Your task to perform on an android device: Is it going to rain today? Image 0: 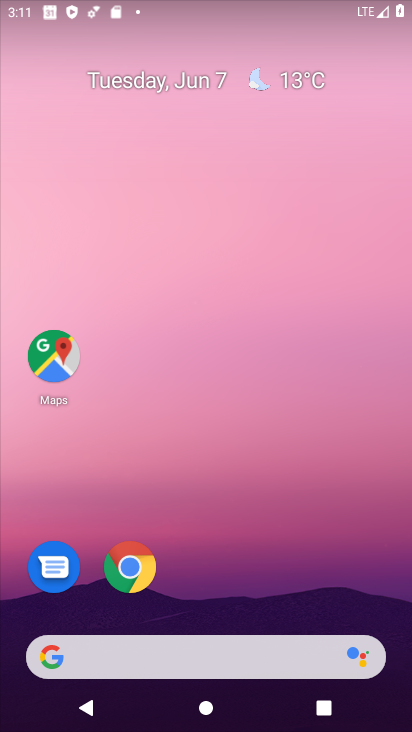
Step 0: click (257, 75)
Your task to perform on an android device: Is it going to rain today? Image 1: 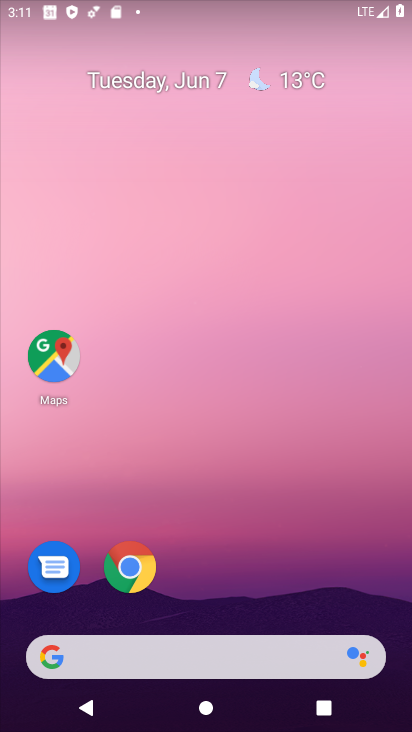
Step 1: click (268, 79)
Your task to perform on an android device: Is it going to rain today? Image 2: 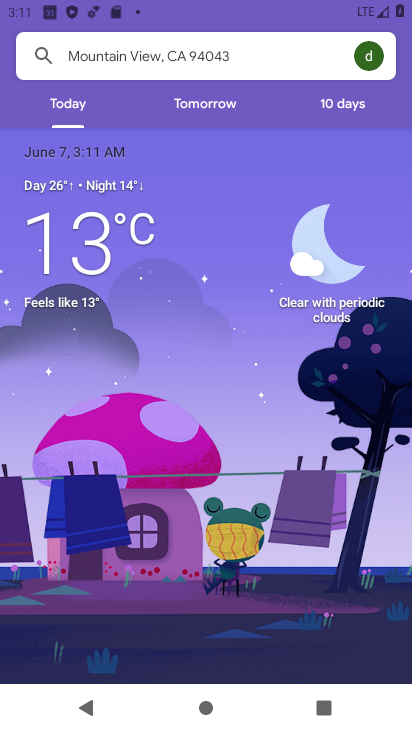
Step 2: task complete